Your task to perform on an android device: Is it going to rain this weekend? Image 0: 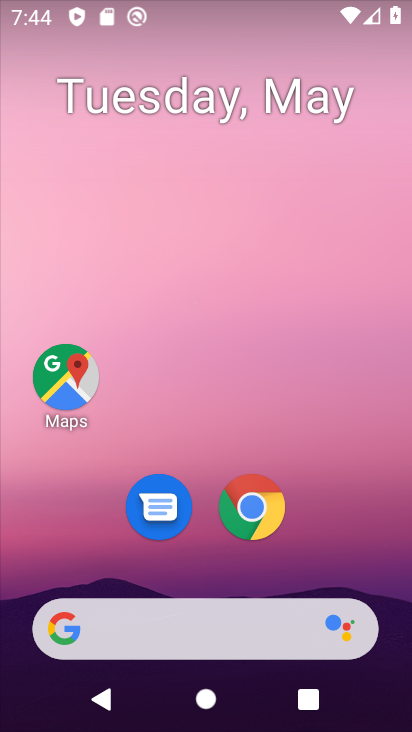
Step 0: click (244, 19)
Your task to perform on an android device: Is it going to rain this weekend? Image 1: 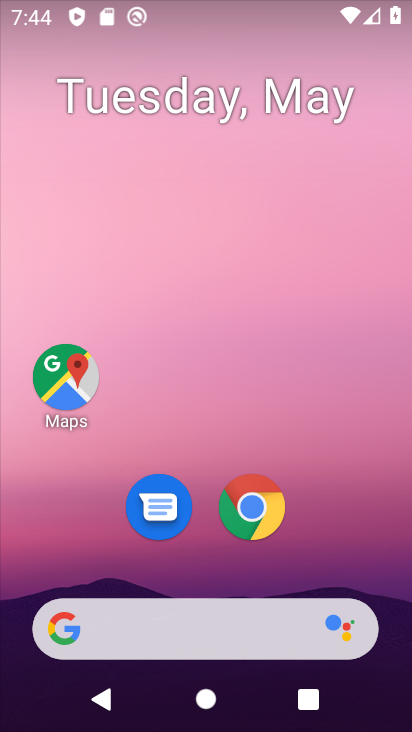
Step 1: drag from (329, 547) to (240, 10)
Your task to perform on an android device: Is it going to rain this weekend? Image 2: 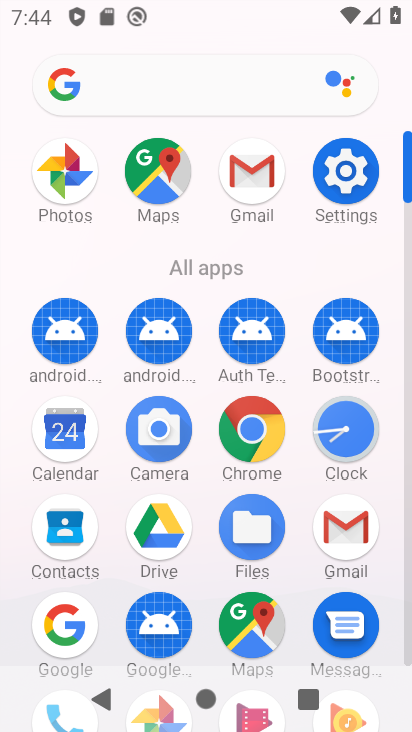
Step 2: click (247, 432)
Your task to perform on an android device: Is it going to rain this weekend? Image 3: 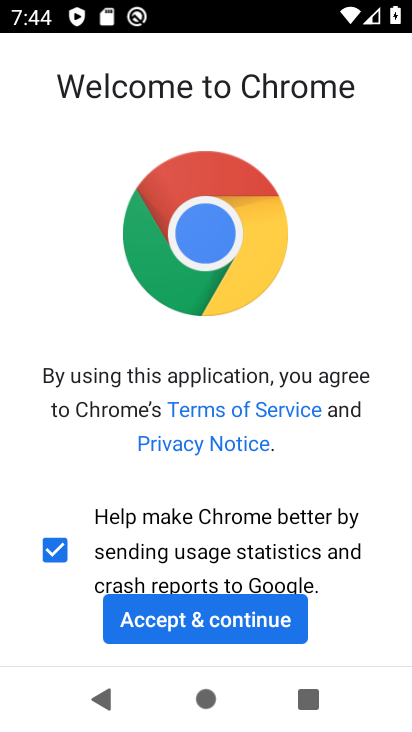
Step 3: click (192, 627)
Your task to perform on an android device: Is it going to rain this weekend? Image 4: 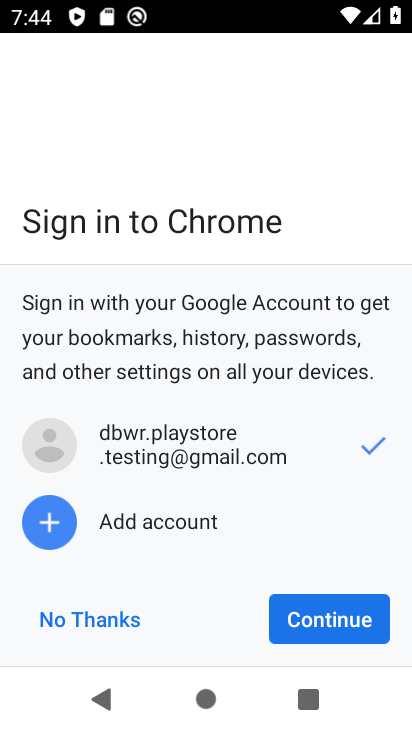
Step 4: click (302, 616)
Your task to perform on an android device: Is it going to rain this weekend? Image 5: 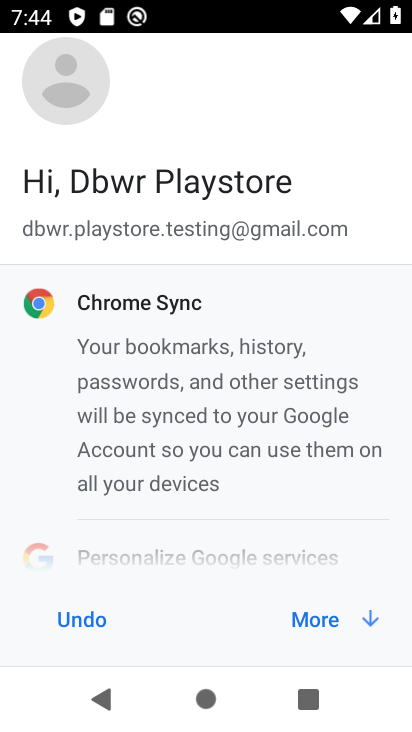
Step 5: click (295, 620)
Your task to perform on an android device: Is it going to rain this weekend? Image 6: 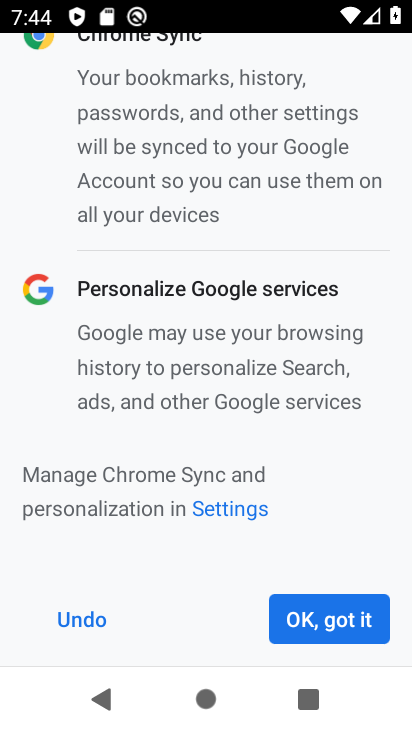
Step 6: click (302, 624)
Your task to perform on an android device: Is it going to rain this weekend? Image 7: 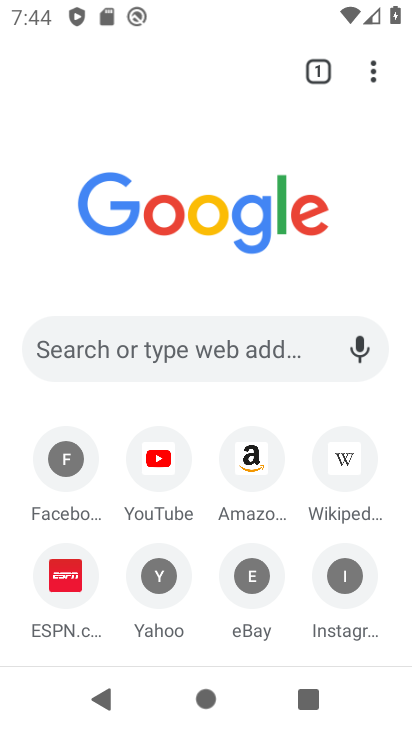
Step 7: click (180, 346)
Your task to perform on an android device: Is it going to rain this weekend? Image 8: 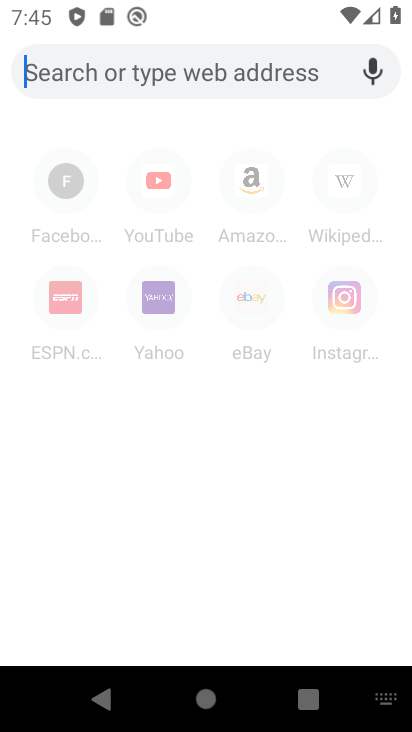
Step 8: type "Is it going to rain this weekend?"
Your task to perform on an android device: Is it going to rain this weekend? Image 9: 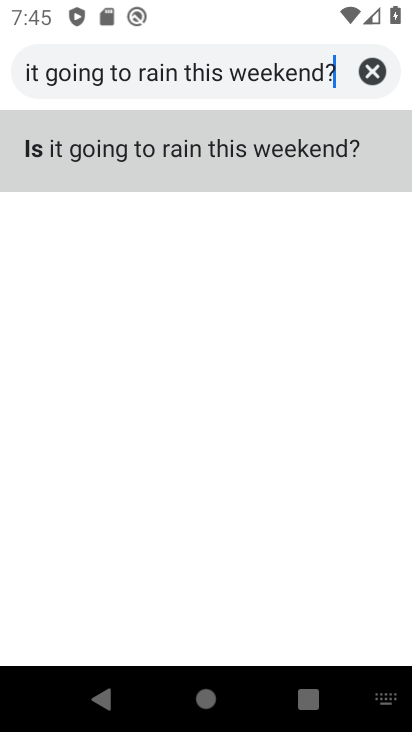
Step 9: click (205, 121)
Your task to perform on an android device: Is it going to rain this weekend? Image 10: 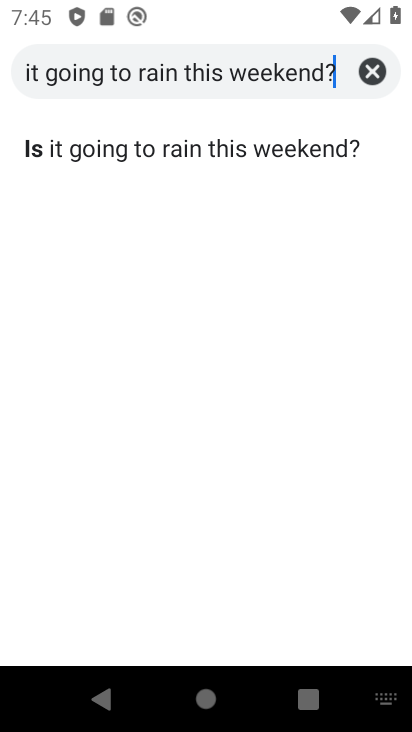
Step 10: click (196, 159)
Your task to perform on an android device: Is it going to rain this weekend? Image 11: 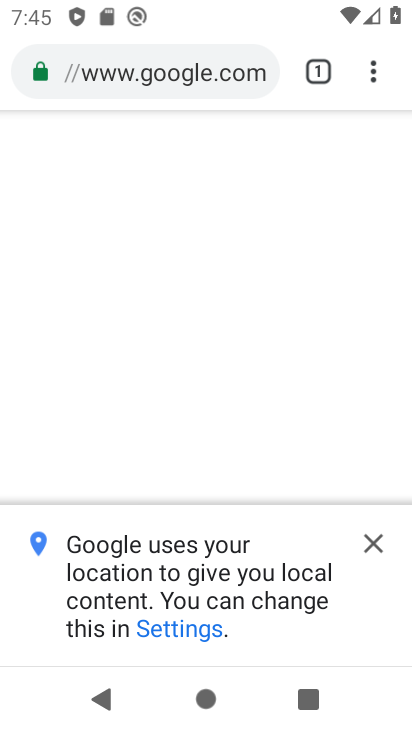
Step 11: click (368, 539)
Your task to perform on an android device: Is it going to rain this weekend? Image 12: 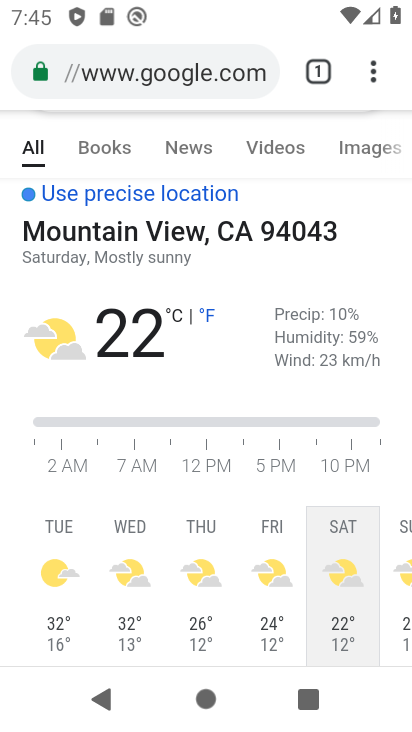
Step 12: task complete